Your task to perform on an android device: Go to Reddit.com Image 0: 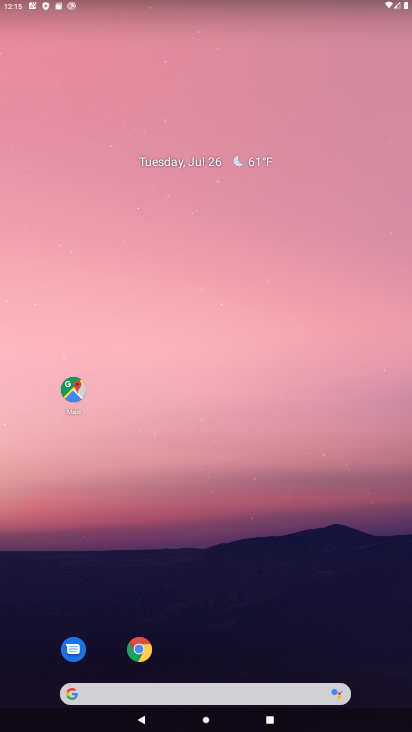
Step 0: click (137, 641)
Your task to perform on an android device: Go to Reddit.com Image 1: 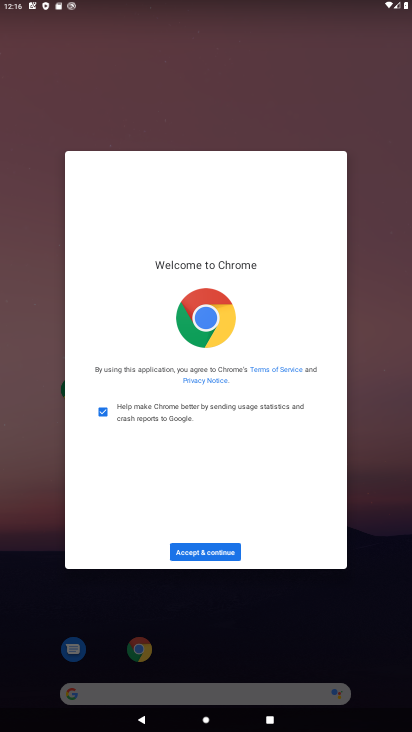
Step 1: click (226, 544)
Your task to perform on an android device: Go to Reddit.com Image 2: 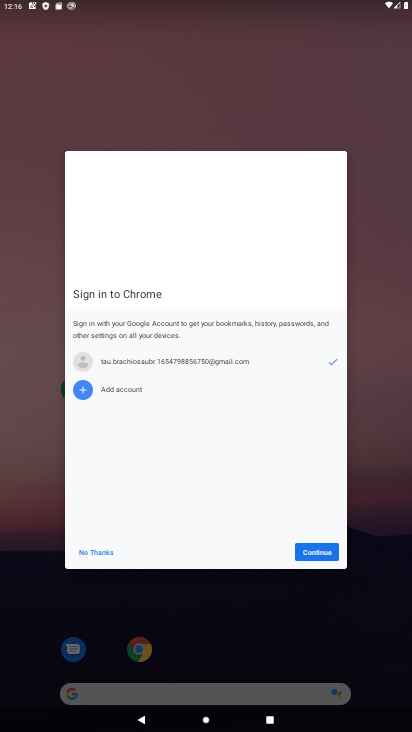
Step 2: click (300, 553)
Your task to perform on an android device: Go to Reddit.com Image 3: 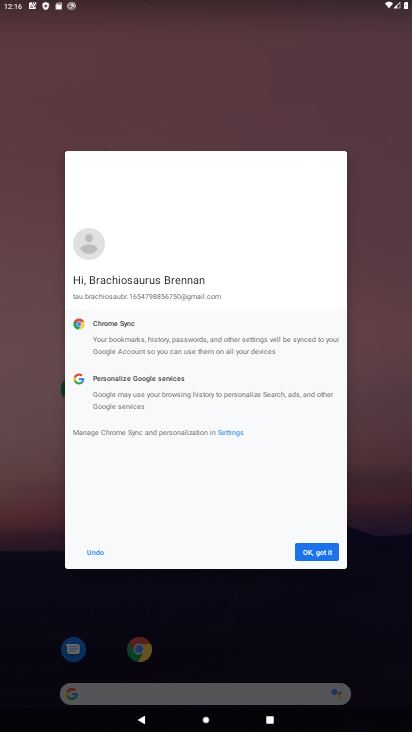
Step 3: click (310, 547)
Your task to perform on an android device: Go to Reddit.com Image 4: 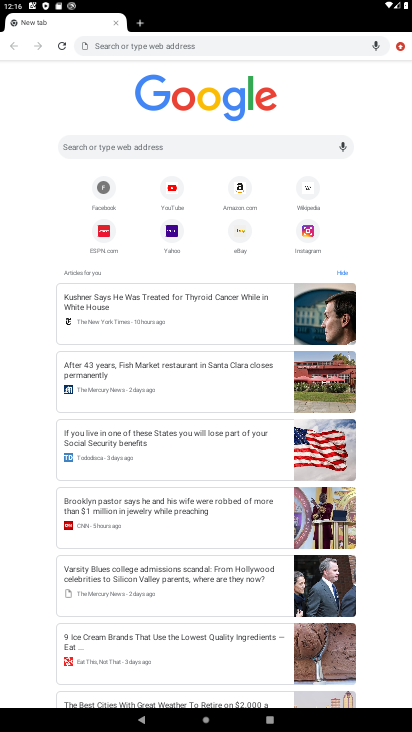
Step 4: type "Reddit.com"
Your task to perform on an android device: Go to Reddit.com Image 5: 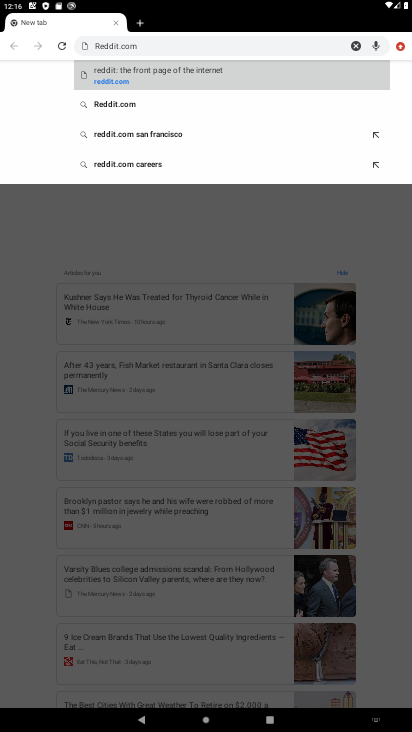
Step 5: click (110, 100)
Your task to perform on an android device: Go to Reddit.com Image 6: 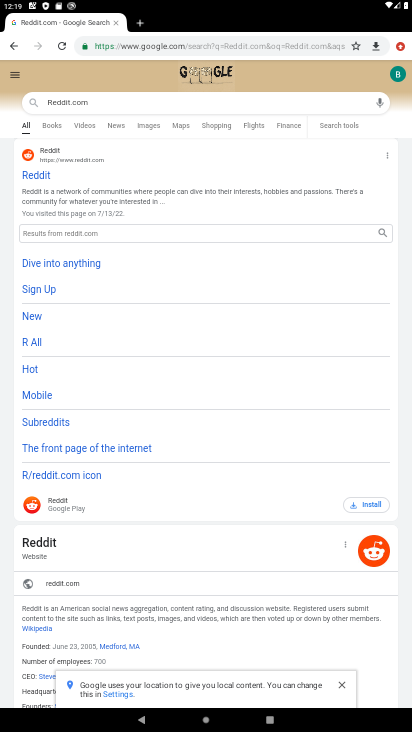
Step 6: click (300, 46)
Your task to perform on an android device: Go to Reddit.com Image 7: 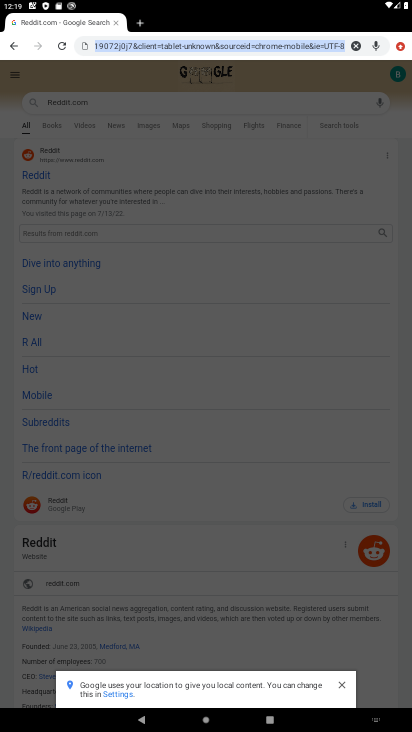
Step 7: click (356, 46)
Your task to perform on an android device: Go to Reddit.com Image 8: 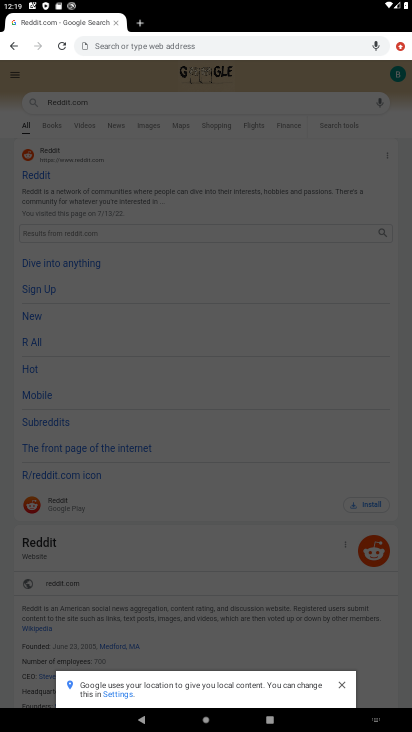
Step 8: type "Reddit.com"
Your task to perform on an android device: Go to Reddit.com Image 9: 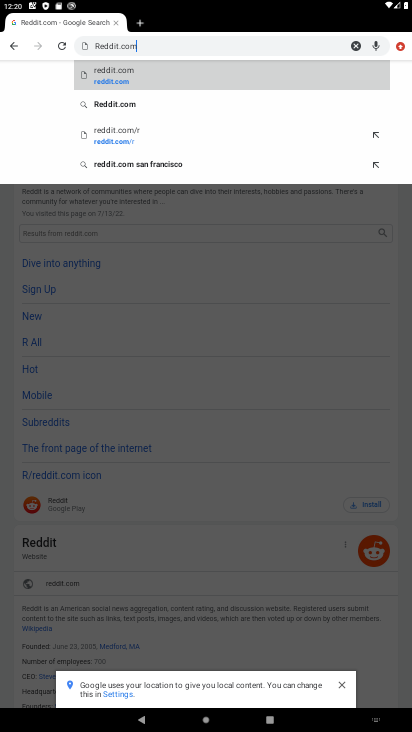
Step 9: click (115, 101)
Your task to perform on an android device: Go to Reddit.com Image 10: 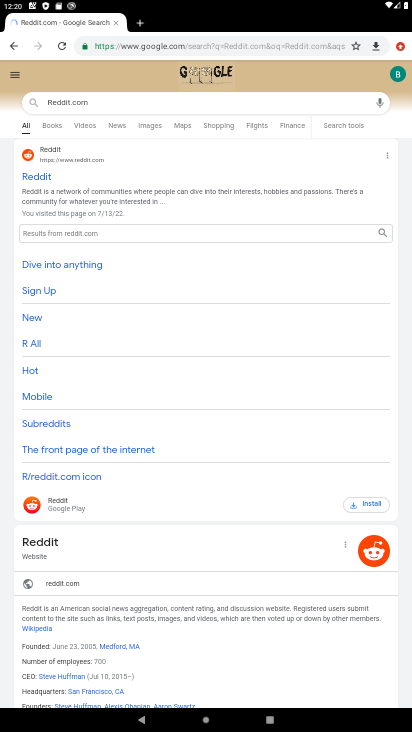
Step 10: task complete